Your task to perform on an android device: Search for Mexican restaurants on Maps Image 0: 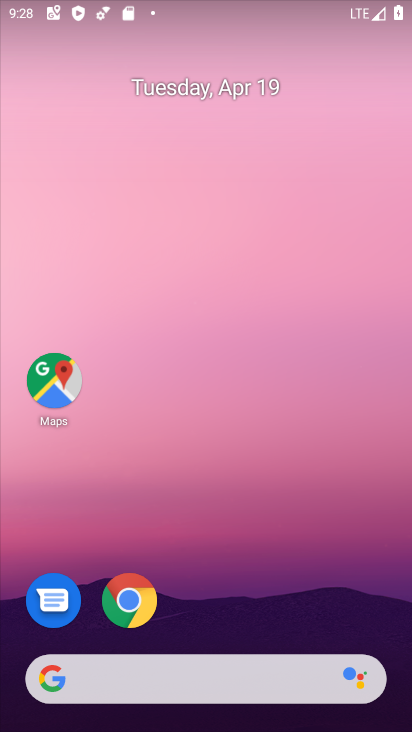
Step 0: click (55, 392)
Your task to perform on an android device: Search for Mexican restaurants on Maps Image 1: 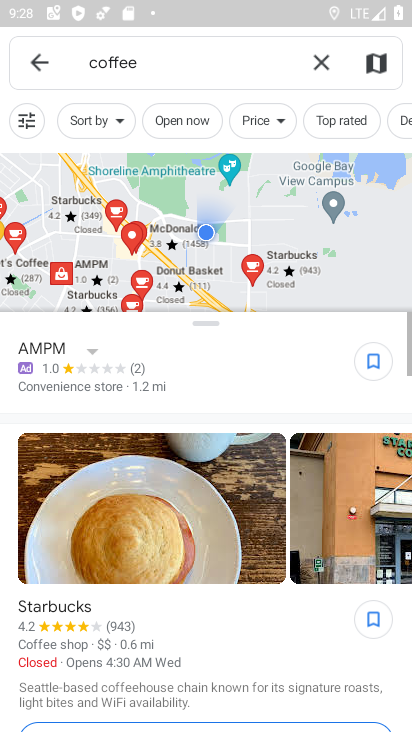
Step 1: click (319, 70)
Your task to perform on an android device: Search for Mexican restaurants on Maps Image 2: 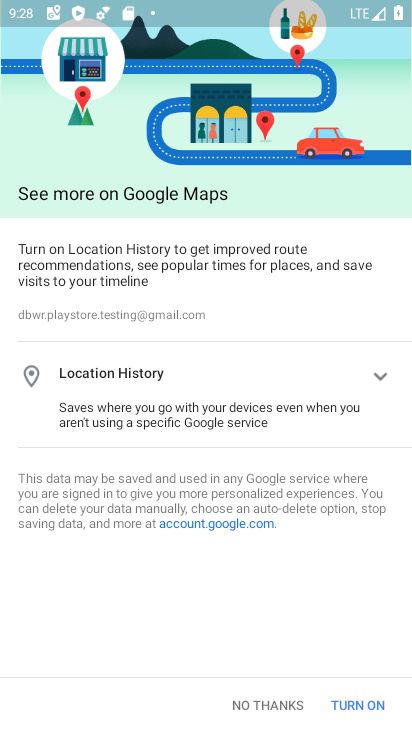
Step 2: click (287, 700)
Your task to perform on an android device: Search for Mexican restaurants on Maps Image 3: 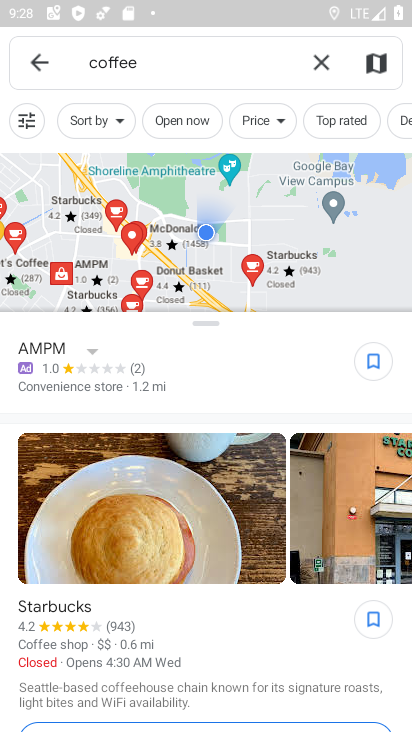
Step 3: click (139, 55)
Your task to perform on an android device: Search for Mexican restaurants on Maps Image 4: 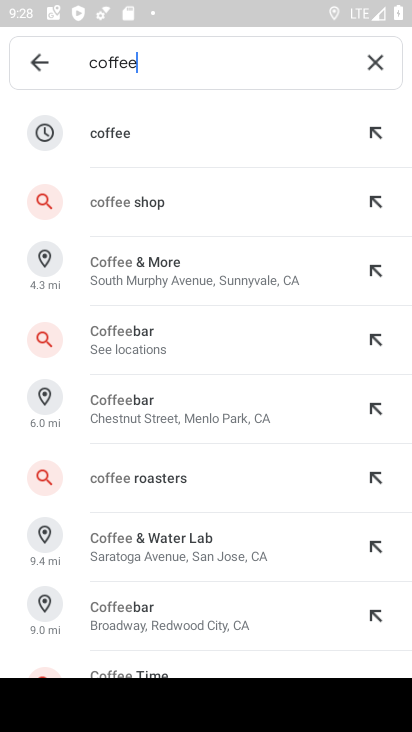
Step 4: click (372, 62)
Your task to perform on an android device: Search for Mexican restaurants on Maps Image 5: 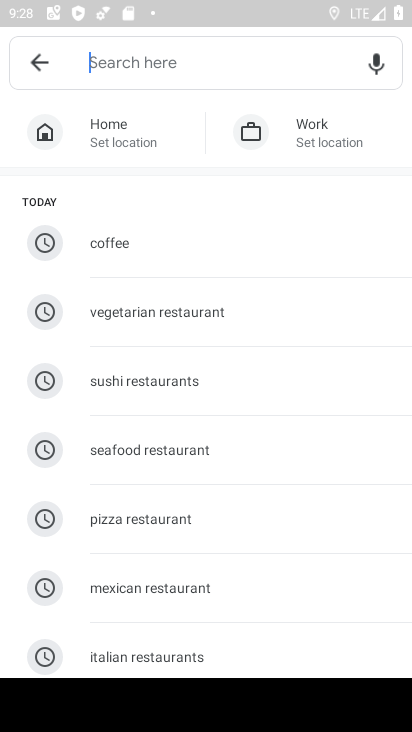
Step 5: click (308, 608)
Your task to perform on an android device: Search for Mexican restaurants on Maps Image 6: 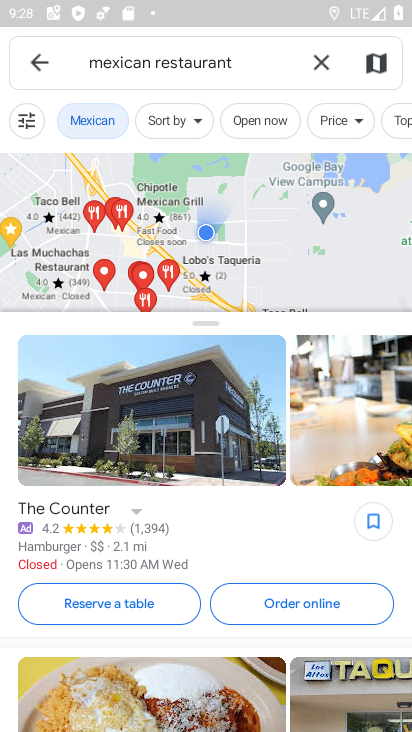
Step 6: task complete